Your task to perform on an android device: Go to Yahoo.com Image 0: 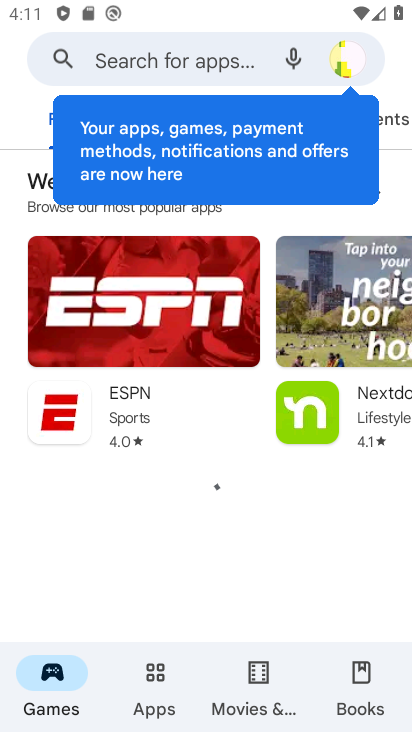
Step 0: press home button
Your task to perform on an android device: Go to Yahoo.com Image 1: 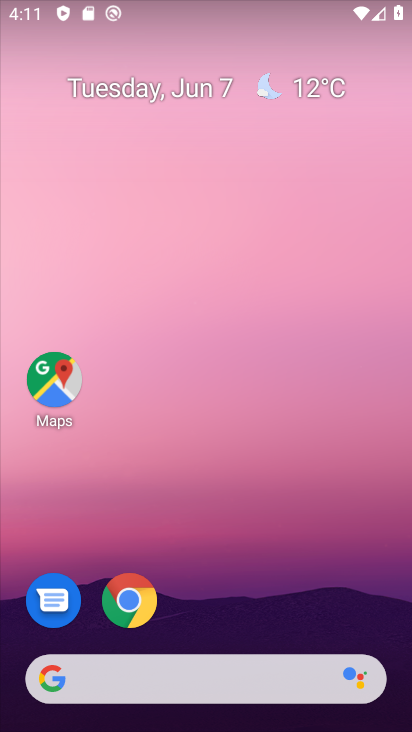
Step 1: click (122, 605)
Your task to perform on an android device: Go to Yahoo.com Image 2: 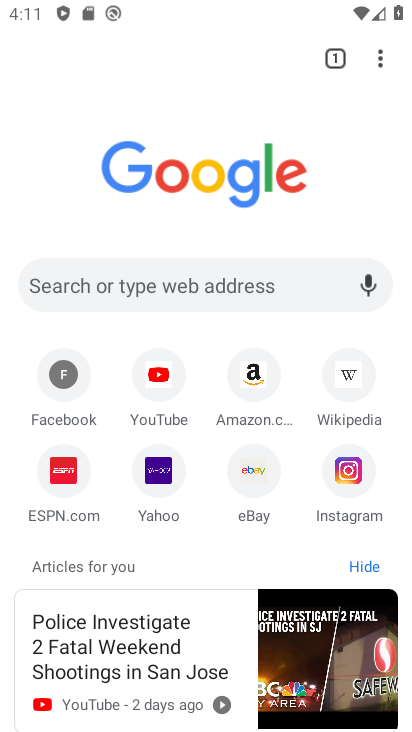
Step 2: click (159, 475)
Your task to perform on an android device: Go to Yahoo.com Image 3: 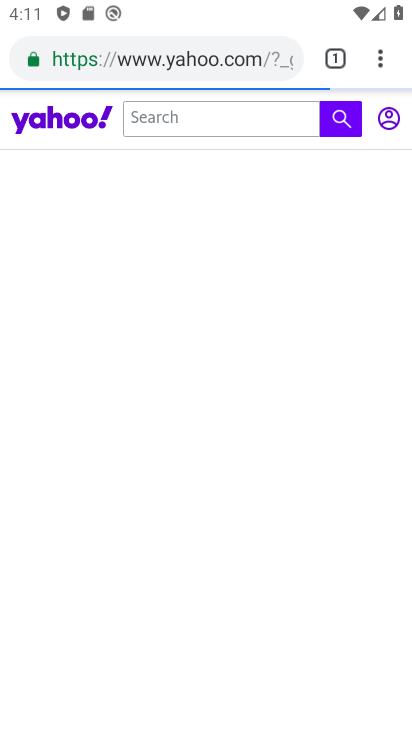
Step 3: task complete